Your task to perform on an android device: Open network settings Image 0: 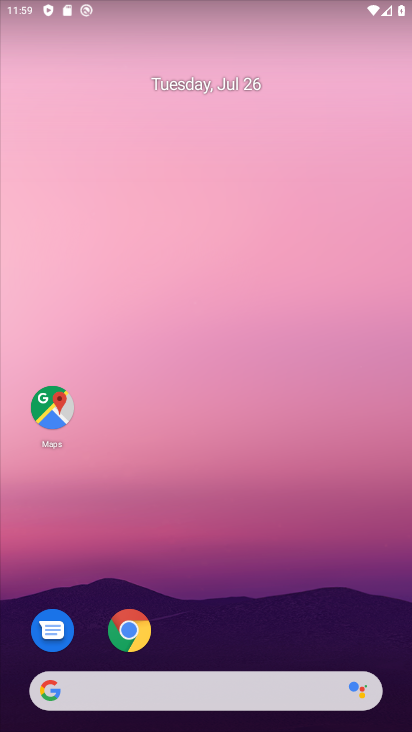
Step 0: drag from (309, 606) to (254, 3)
Your task to perform on an android device: Open network settings Image 1: 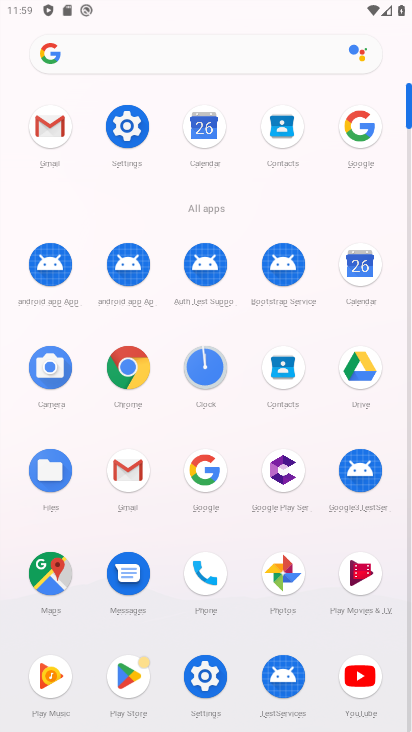
Step 1: click (123, 115)
Your task to perform on an android device: Open network settings Image 2: 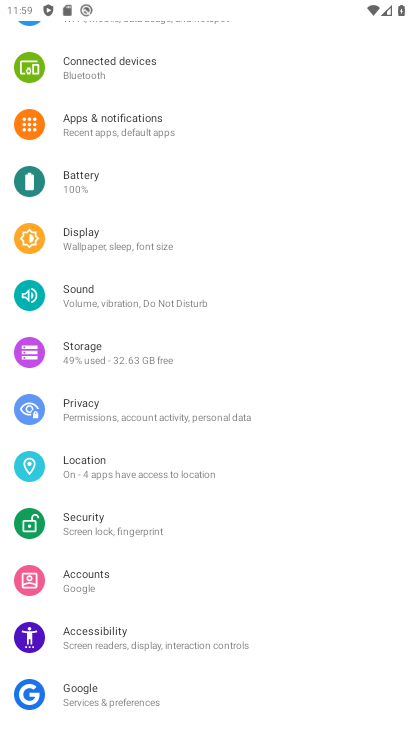
Step 2: drag from (148, 114) to (158, 366)
Your task to perform on an android device: Open network settings Image 3: 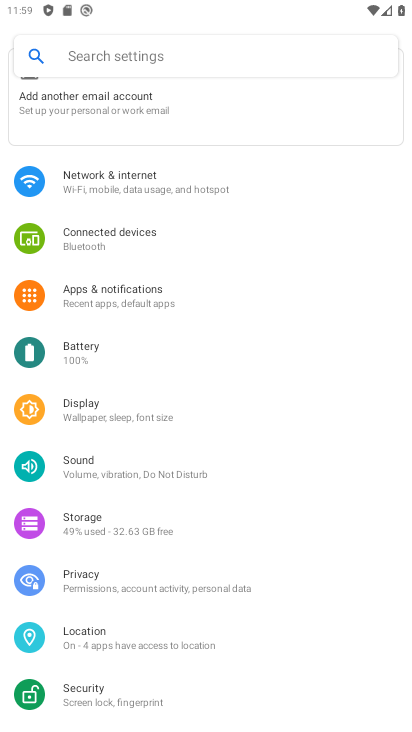
Step 3: click (144, 172)
Your task to perform on an android device: Open network settings Image 4: 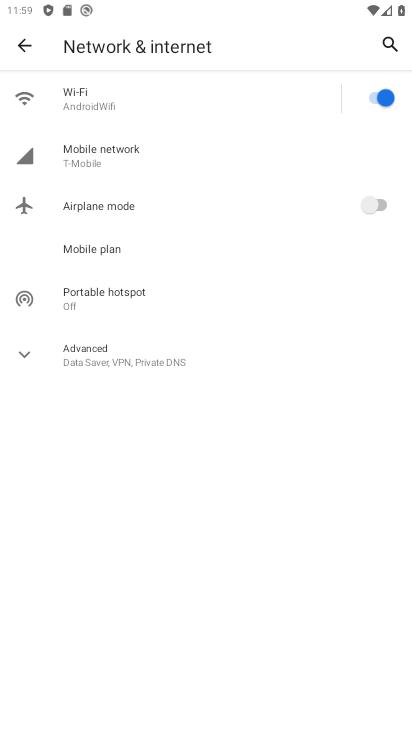
Step 4: click (148, 155)
Your task to perform on an android device: Open network settings Image 5: 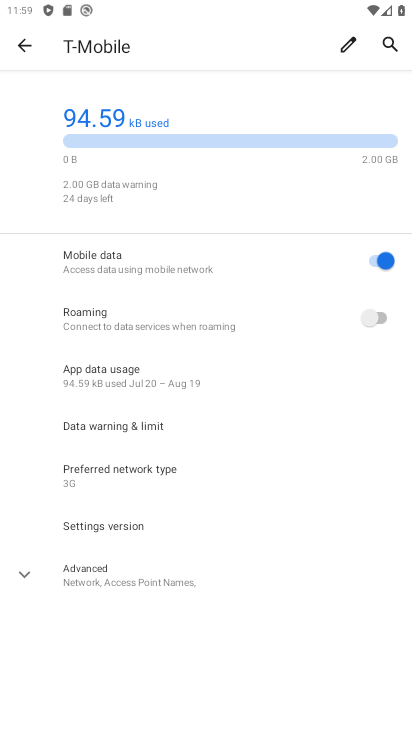
Step 5: task complete